Your task to perform on an android device: Go to Reddit.com Image 0: 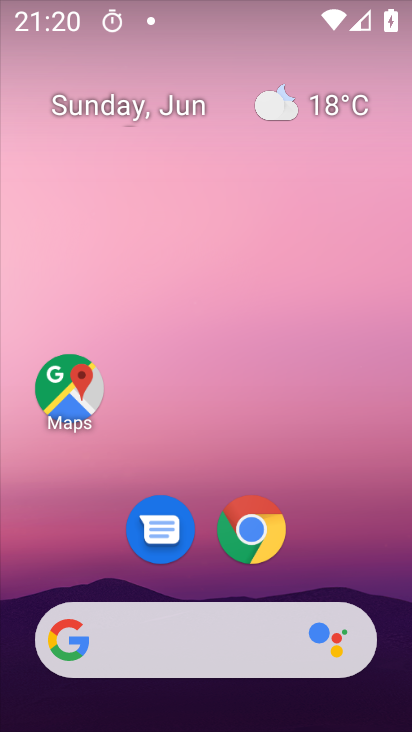
Step 0: click (257, 528)
Your task to perform on an android device: Go to Reddit.com Image 1: 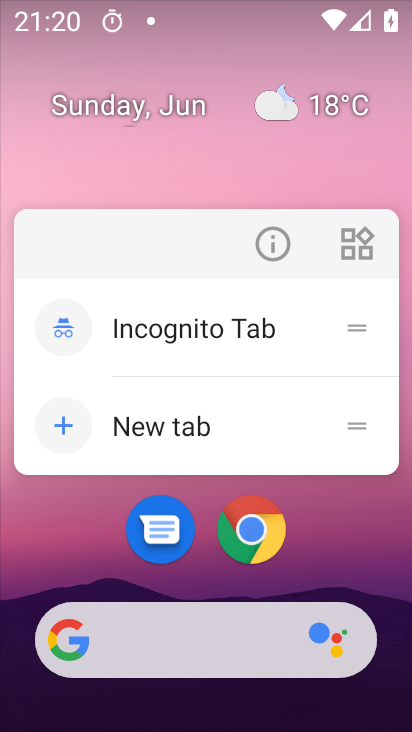
Step 1: click (257, 518)
Your task to perform on an android device: Go to Reddit.com Image 2: 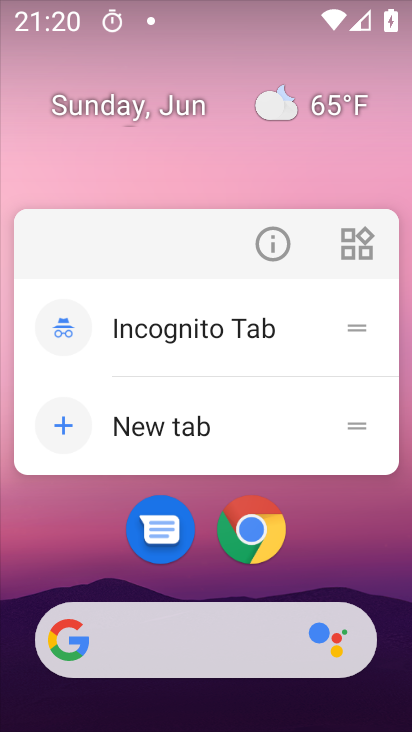
Step 2: click (258, 500)
Your task to perform on an android device: Go to Reddit.com Image 3: 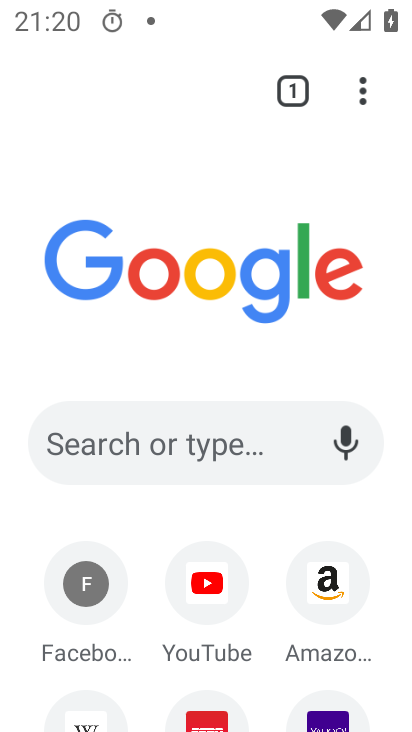
Step 3: click (242, 441)
Your task to perform on an android device: Go to Reddit.com Image 4: 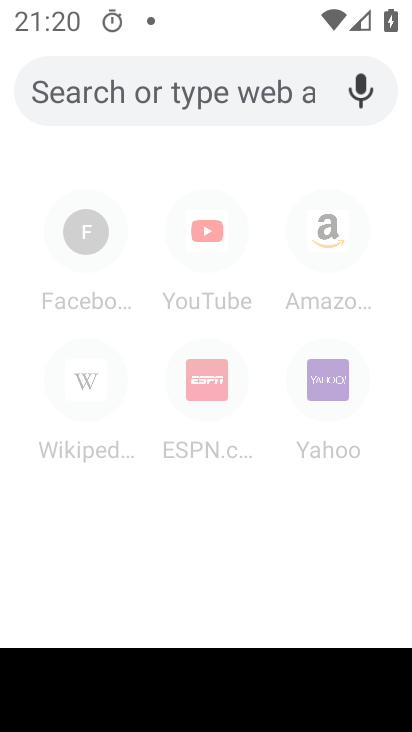
Step 4: type "Reddit.com"
Your task to perform on an android device: Go to Reddit.com Image 5: 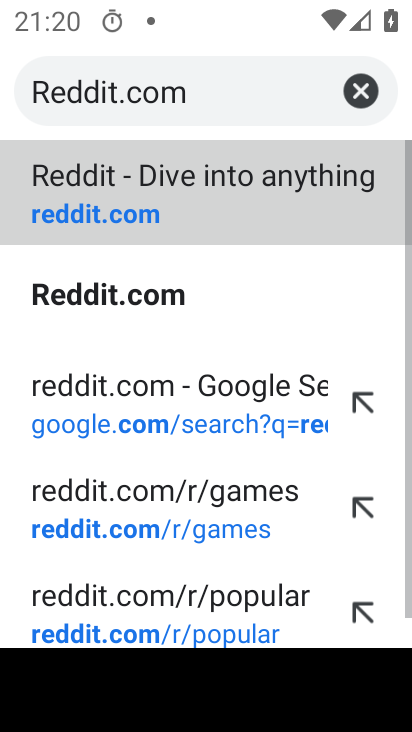
Step 5: click (125, 215)
Your task to perform on an android device: Go to Reddit.com Image 6: 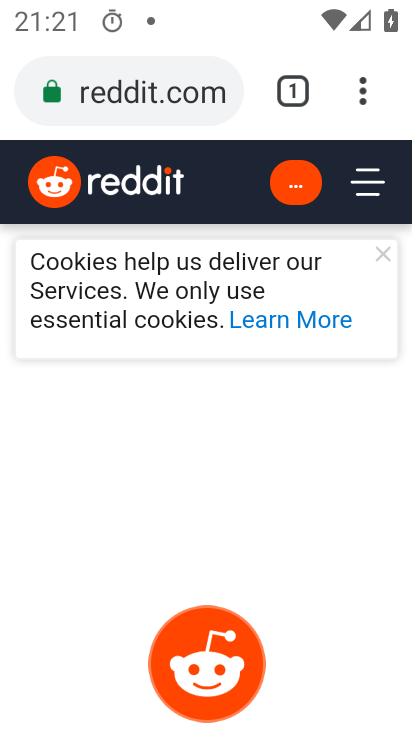
Step 6: task complete